Your task to perform on an android device: Open internet settings Image 0: 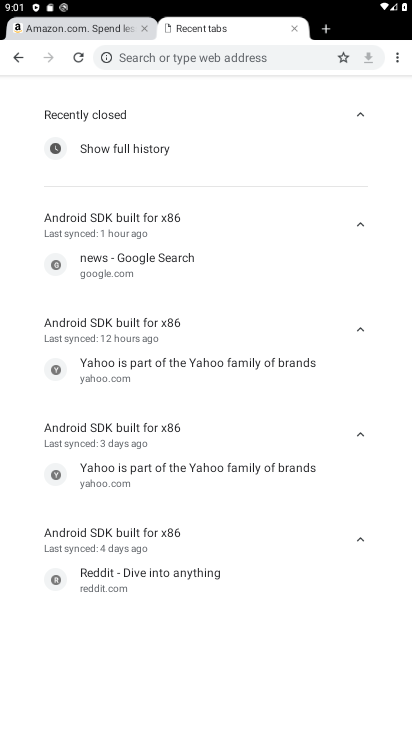
Step 0: press home button
Your task to perform on an android device: Open internet settings Image 1: 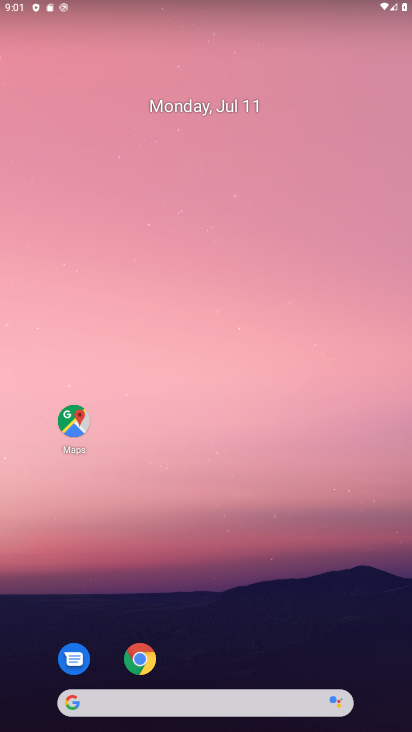
Step 1: drag from (200, 712) to (273, 1)
Your task to perform on an android device: Open internet settings Image 2: 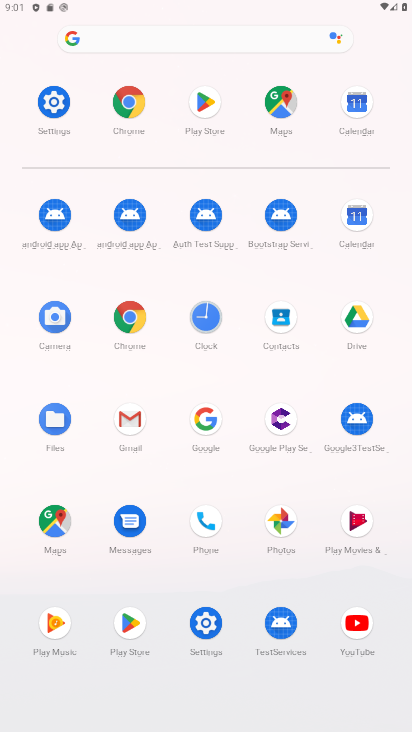
Step 2: click (47, 107)
Your task to perform on an android device: Open internet settings Image 3: 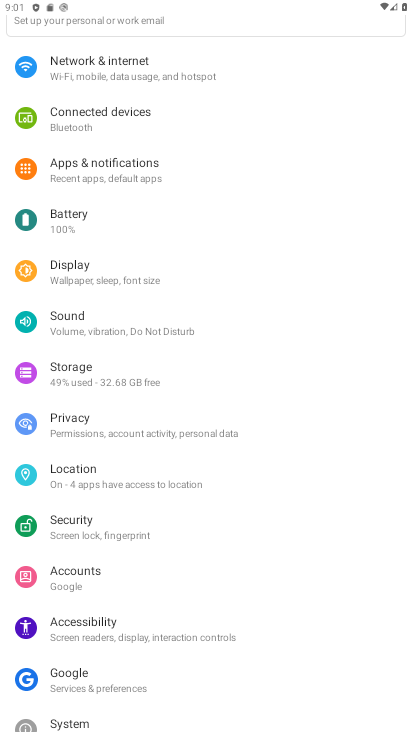
Step 3: drag from (148, 130) to (154, 478)
Your task to perform on an android device: Open internet settings Image 4: 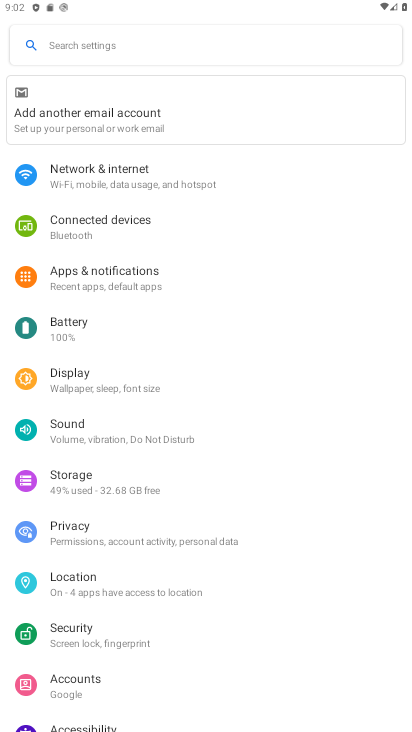
Step 4: click (102, 175)
Your task to perform on an android device: Open internet settings Image 5: 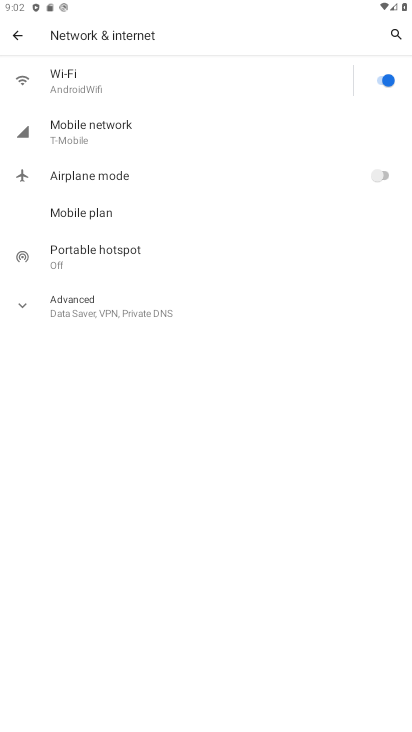
Step 5: task complete